Your task to perform on an android device: check storage Image 0: 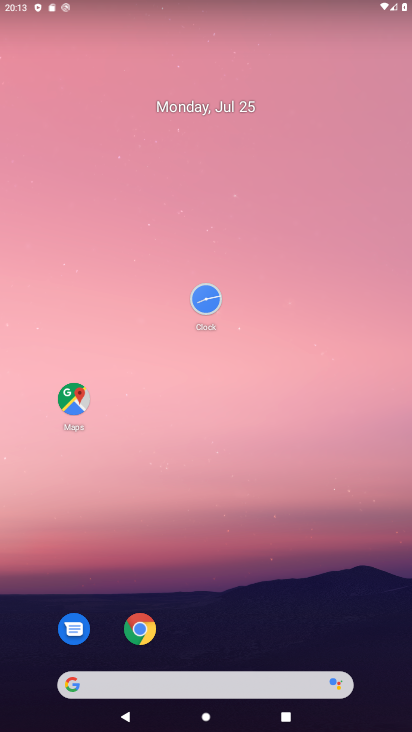
Step 0: click (196, 130)
Your task to perform on an android device: check storage Image 1: 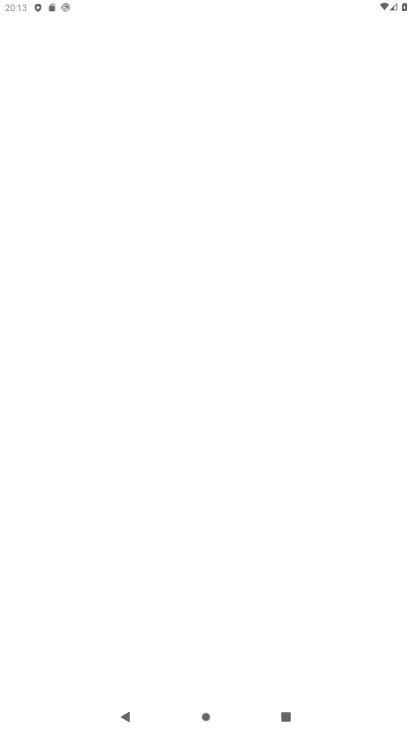
Step 1: press home button
Your task to perform on an android device: check storage Image 2: 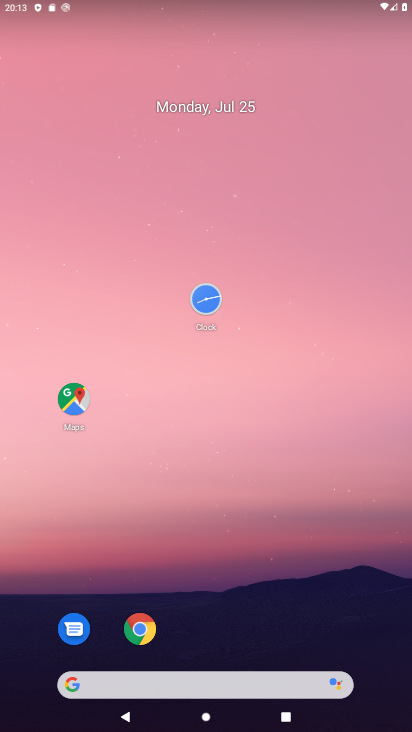
Step 2: drag from (228, 628) to (278, 0)
Your task to perform on an android device: check storage Image 3: 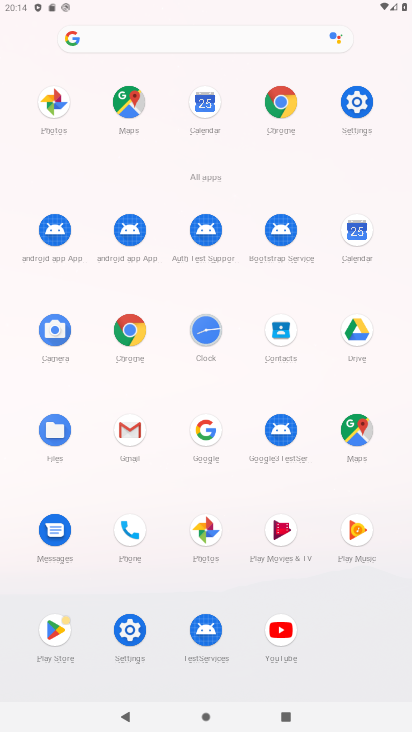
Step 3: click (119, 644)
Your task to perform on an android device: check storage Image 4: 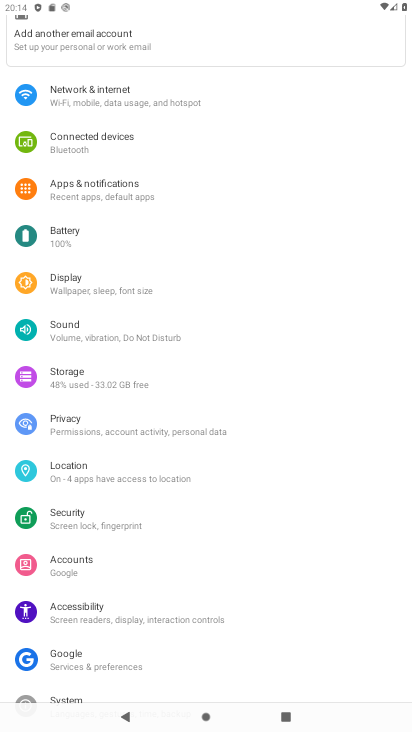
Step 4: click (98, 376)
Your task to perform on an android device: check storage Image 5: 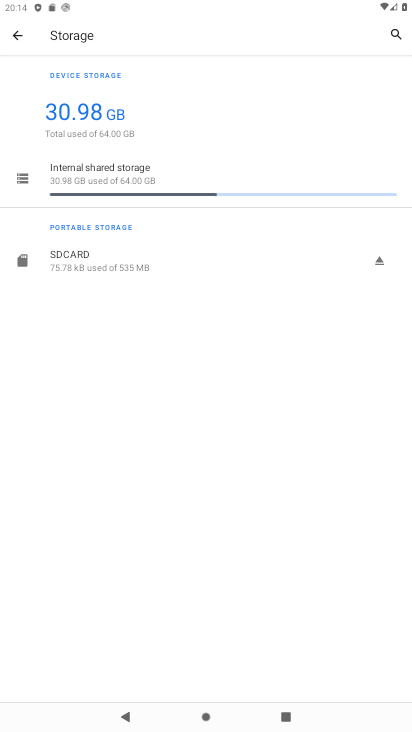
Step 5: drag from (175, 434) to (178, 391)
Your task to perform on an android device: check storage Image 6: 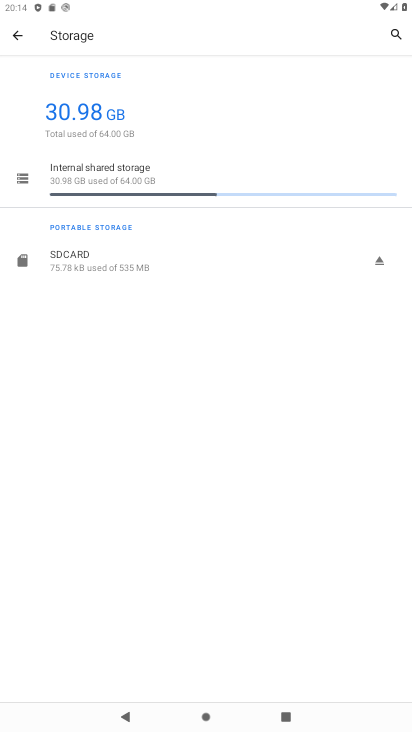
Step 6: click (120, 162)
Your task to perform on an android device: check storage Image 7: 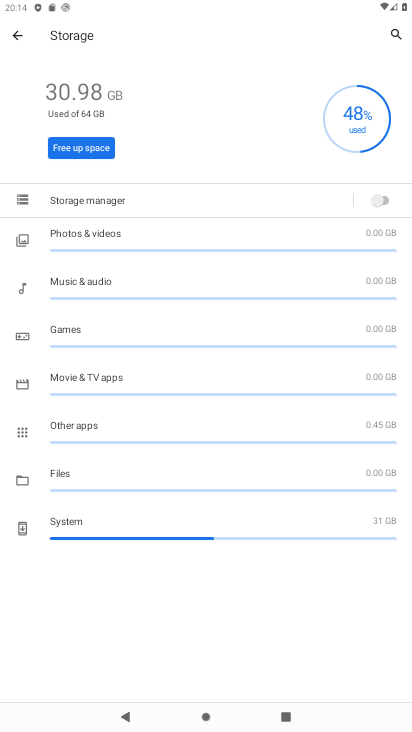
Step 7: task complete